Your task to perform on an android device: Open Youtube and go to "Your channel" Image 0: 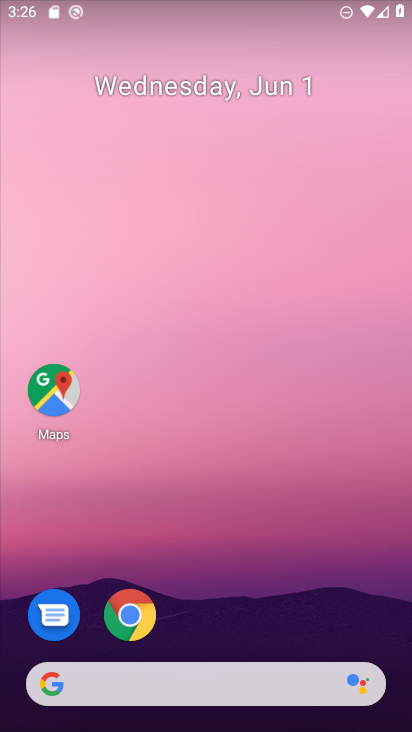
Step 0: press home button
Your task to perform on an android device: Open Youtube and go to "Your channel" Image 1: 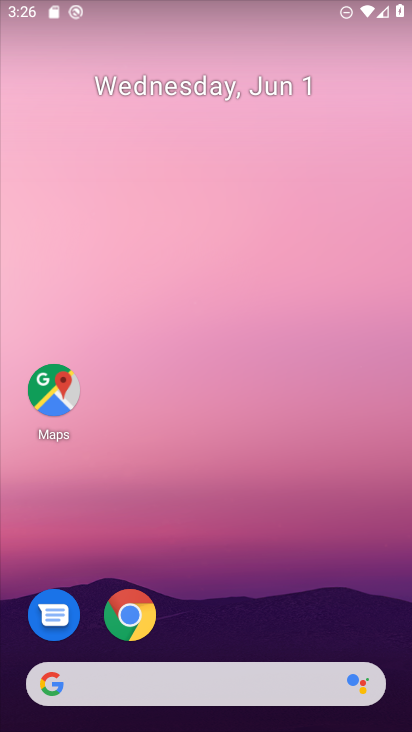
Step 1: drag from (211, 636) to (226, 357)
Your task to perform on an android device: Open Youtube and go to "Your channel" Image 2: 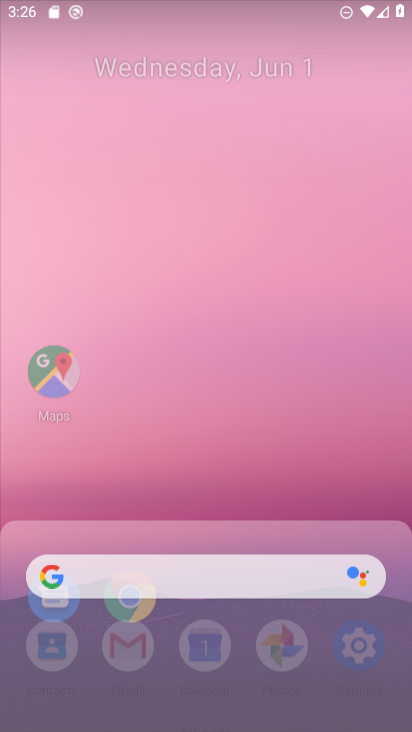
Step 2: click (256, 93)
Your task to perform on an android device: Open Youtube and go to "Your channel" Image 3: 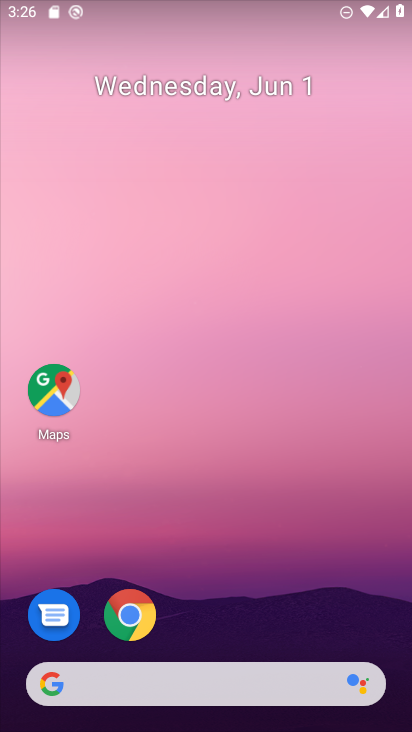
Step 3: drag from (229, 633) to (270, 65)
Your task to perform on an android device: Open Youtube and go to "Your channel" Image 4: 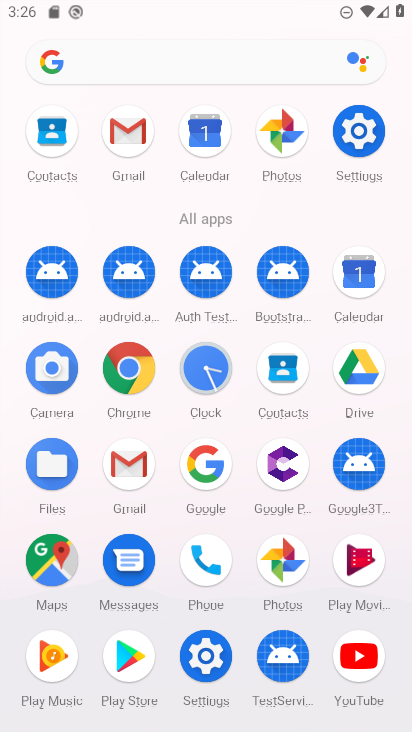
Step 4: click (356, 651)
Your task to perform on an android device: Open Youtube and go to "Your channel" Image 5: 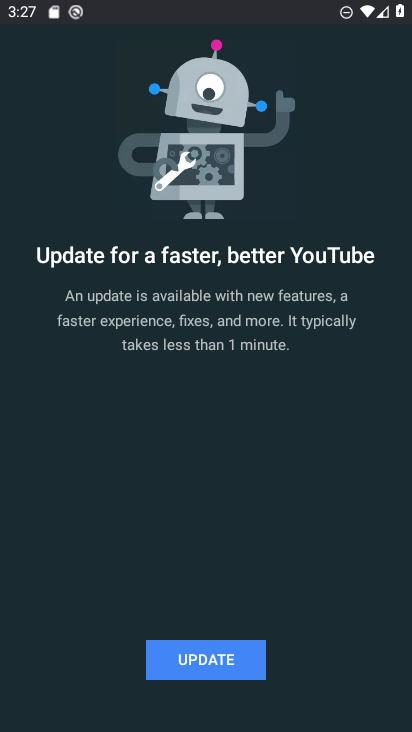
Step 5: click (213, 660)
Your task to perform on an android device: Open Youtube and go to "Your channel" Image 6: 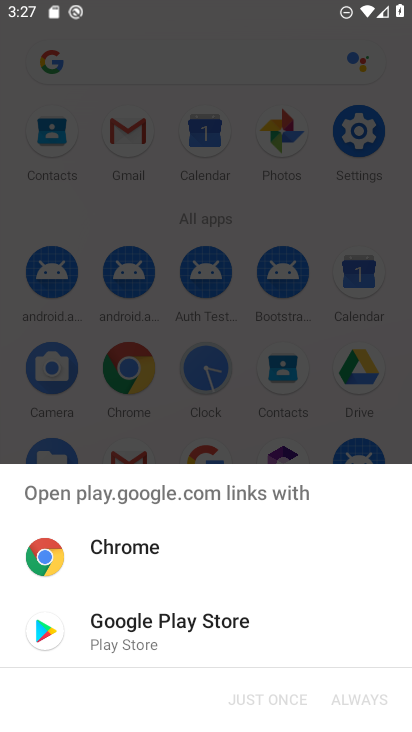
Step 6: click (148, 633)
Your task to perform on an android device: Open Youtube and go to "Your channel" Image 7: 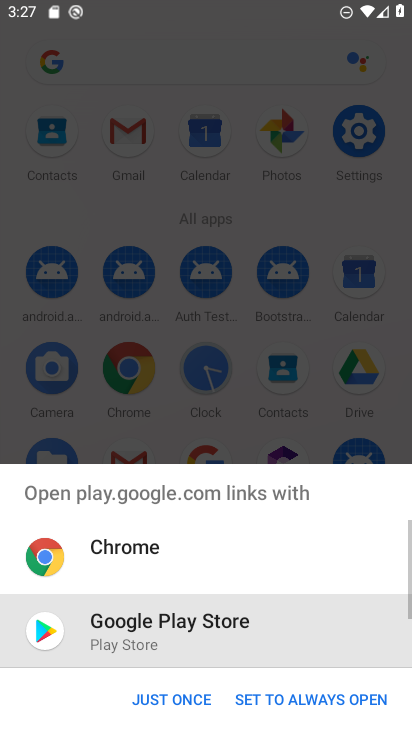
Step 7: click (174, 703)
Your task to perform on an android device: Open Youtube and go to "Your channel" Image 8: 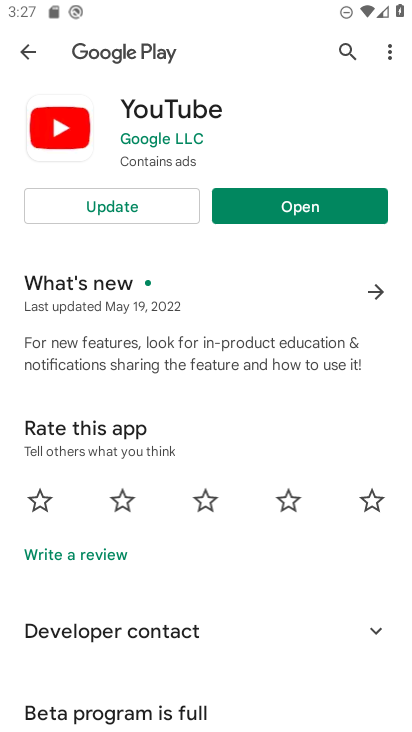
Step 8: click (128, 203)
Your task to perform on an android device: Open Youtube and go to "Your channel" Image 9: 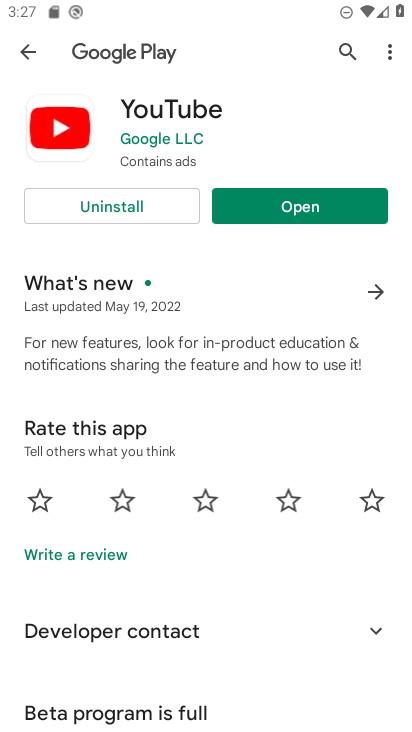
Step 9: click (287, 193)
Your task to perform on an android device: Open Youtube and go to "Your channel" Image 10: 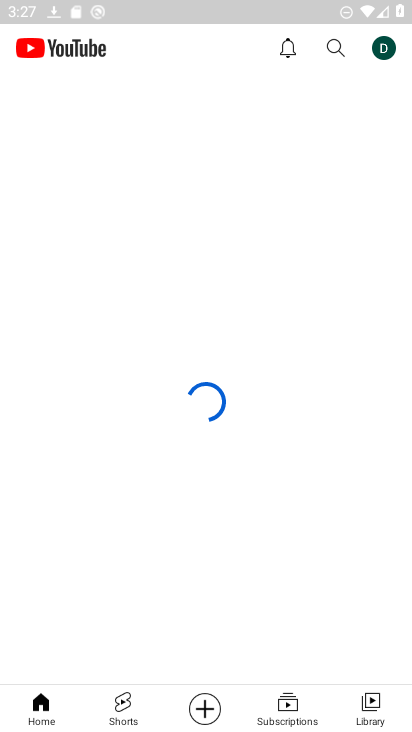
Step 10: click (387, 39)
Your task to perform on an android device: Open Youtube and go to "Your channel" Image 11: 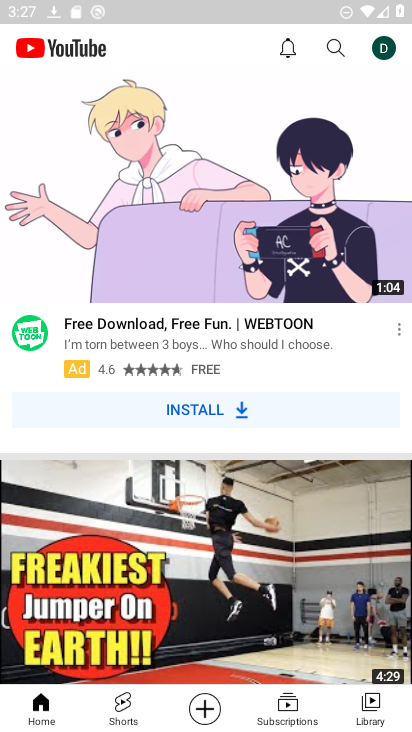
Step 11: click (380, 46)
Your task to perform on an android device: Open Youtube and go to "Your channel" Image 12: 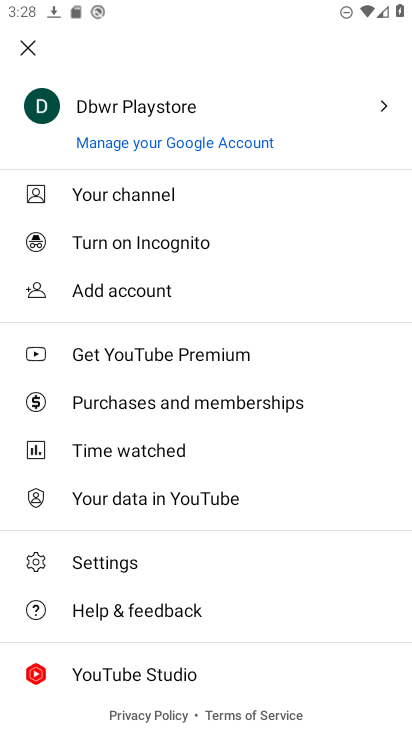
Step 12: click (144, 188)
Your task to perform on an android device: Open Youtube and go to "Your channel" Image 13: 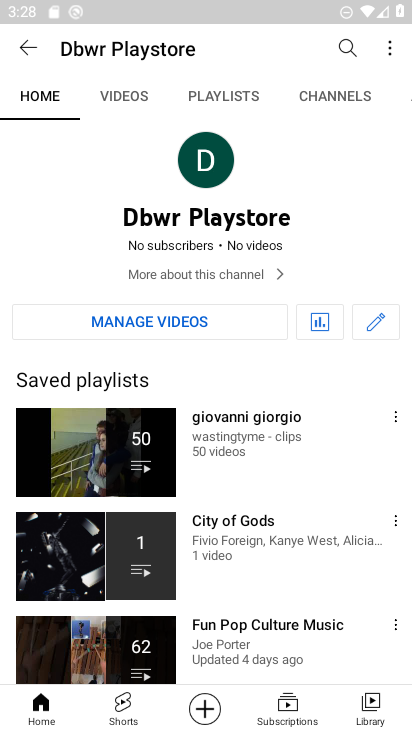
Step 13: task complete